Your task to perform on an android device: Open Google Chrome Image 0: 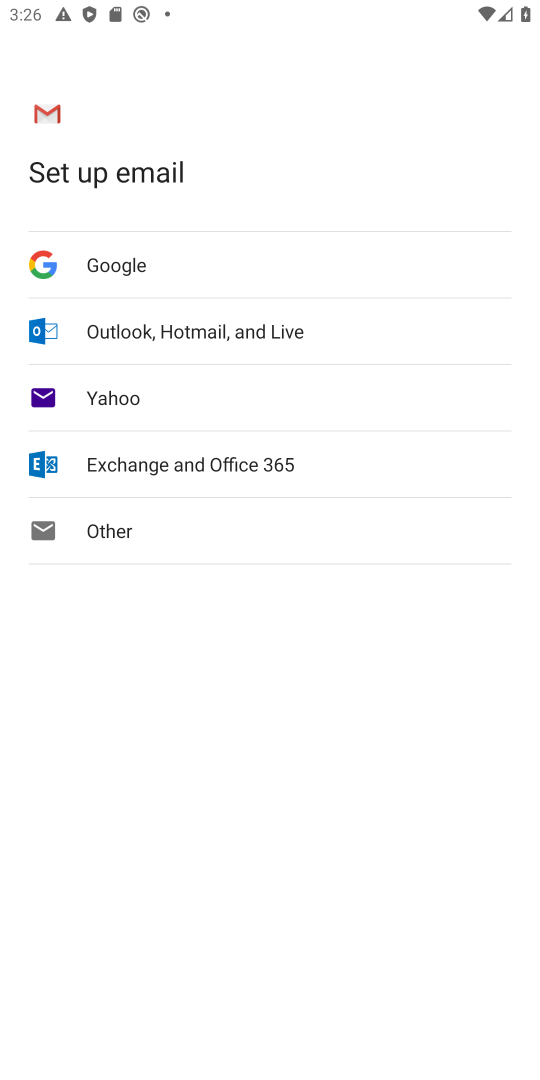
Step 0: press back button
Your task to perform on an android device: Open Google Chrome Image 1: 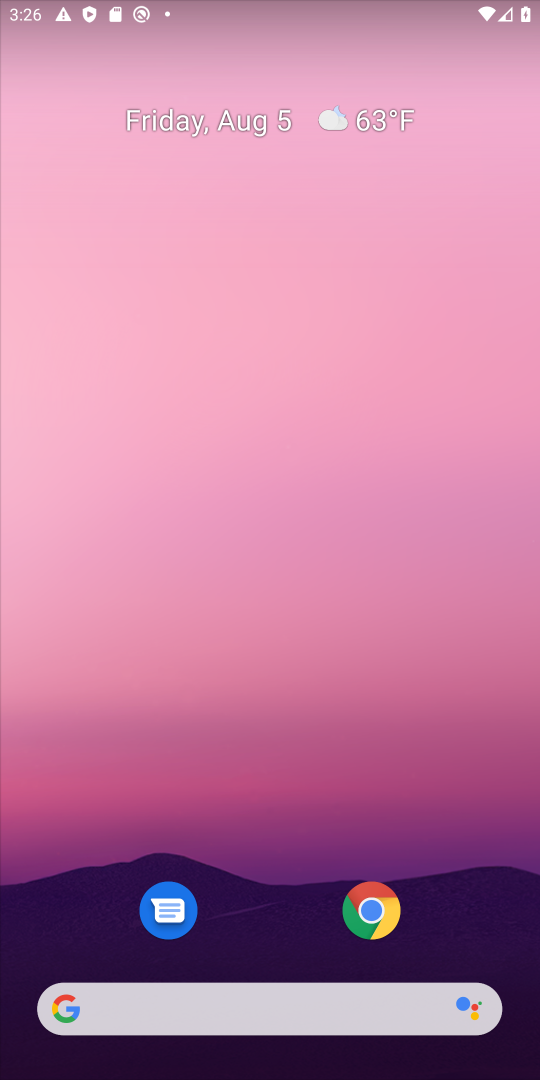
Step 1: drag from (498, 891) to (448, 196)
Your task to perform on an android device: Open Google Chrome Image 2: 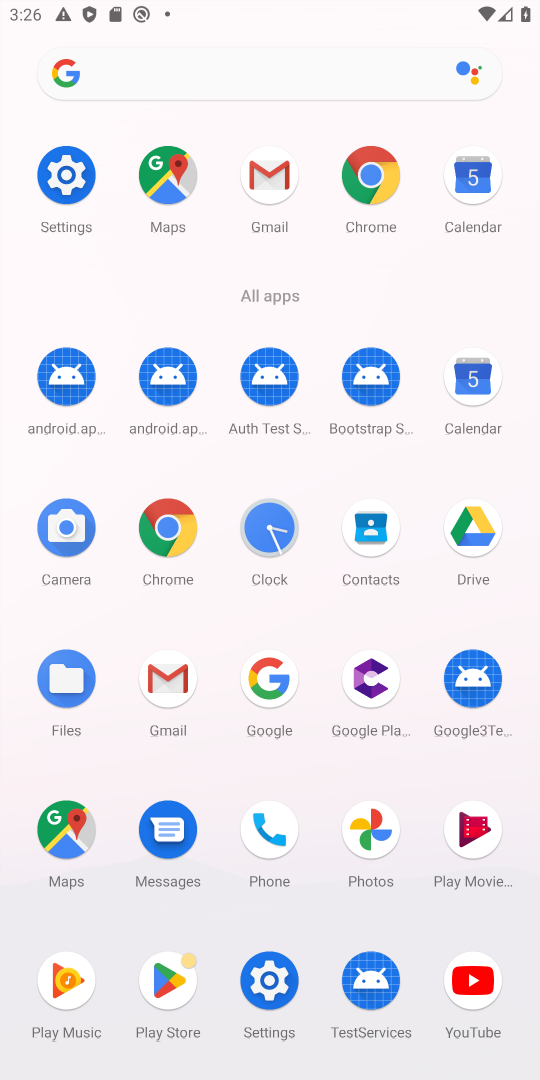
Step 2: click (379, 199)
Your task to perform on an android device: Open Google Chrome Image 3: 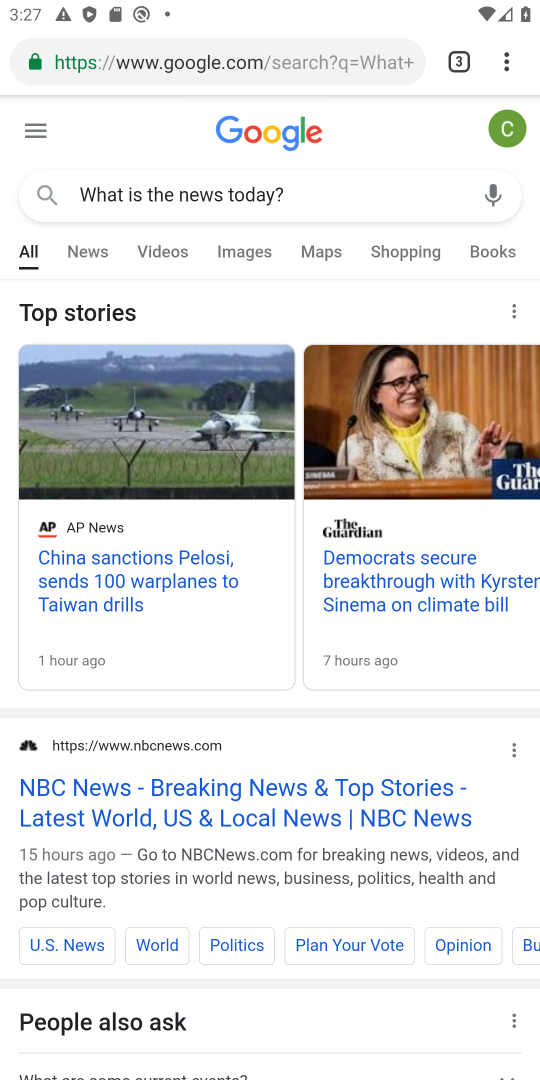
Step 3: task complete